Your task to perform on an android device: turn off location Image 0: 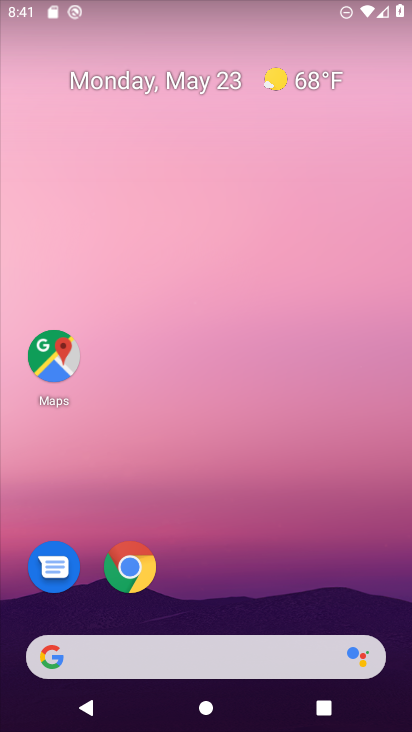
Step 0: drag from (265, 352) to (257, 51)
Your task to perform on an android device: turn off location Image 1: 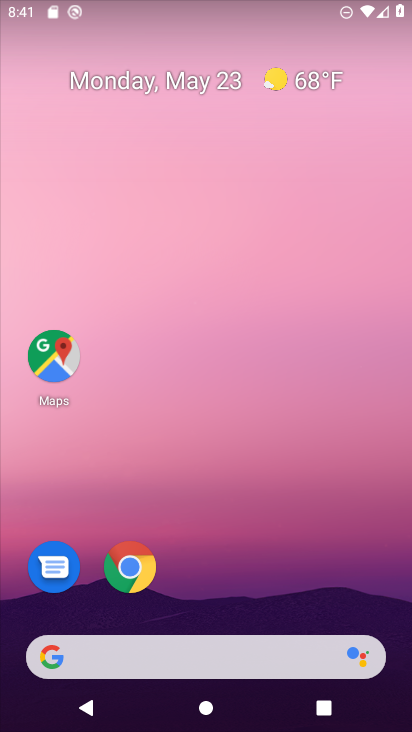
Step 1: drag from (203, 612) to (225, 57)
Your task to perform on an android device: turn off location Image 2: 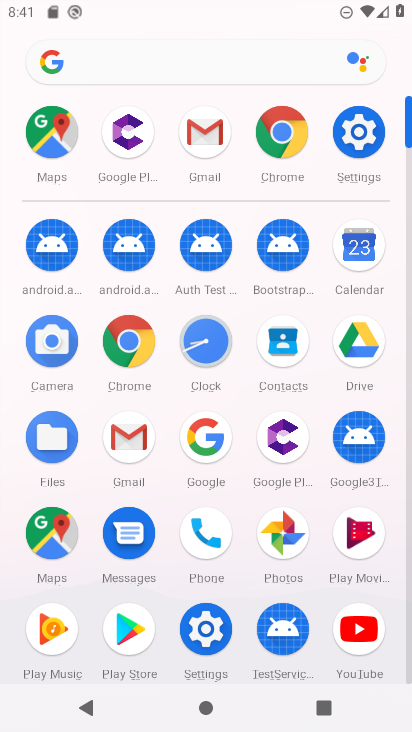
Step 2: click (361, 119)
Your task to perform on an android device: turn off location Image 3: 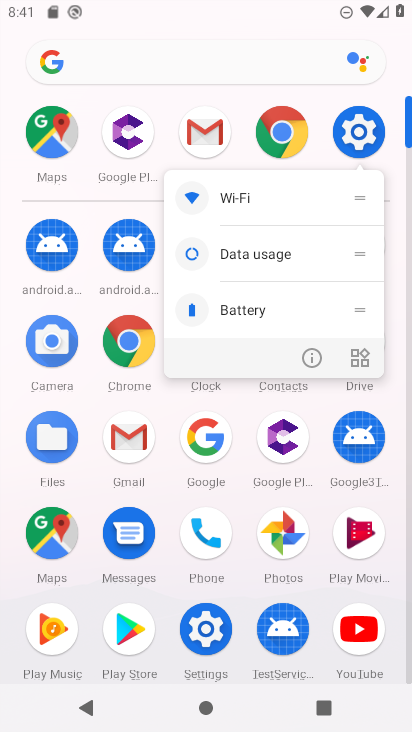
Step 3: click (310, 346)
Your task to perform on an android device: turn off location Image 4: 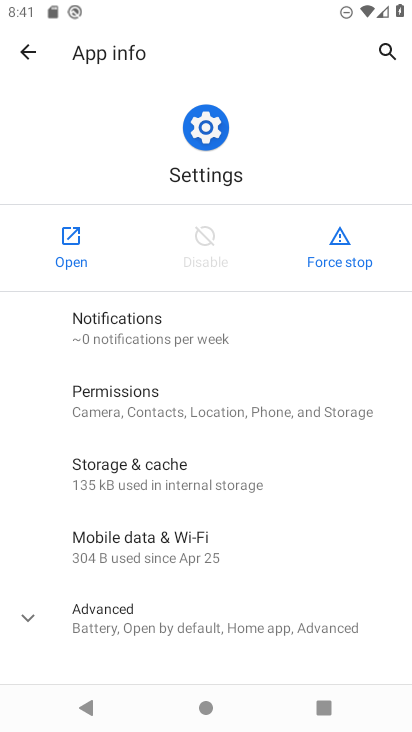
Step 4: click (61, 244)
Your task to perform on an android device: turn off location Image 5: 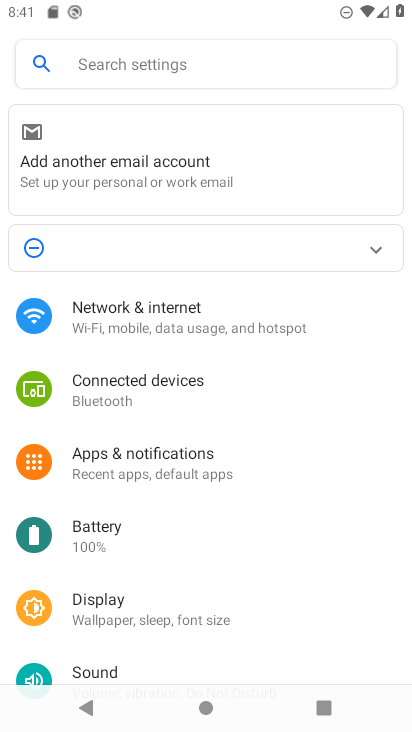
Step 5: drag from (226, 530) to (329, 111)
Your task to perform on an android device: turn off location Image 6: 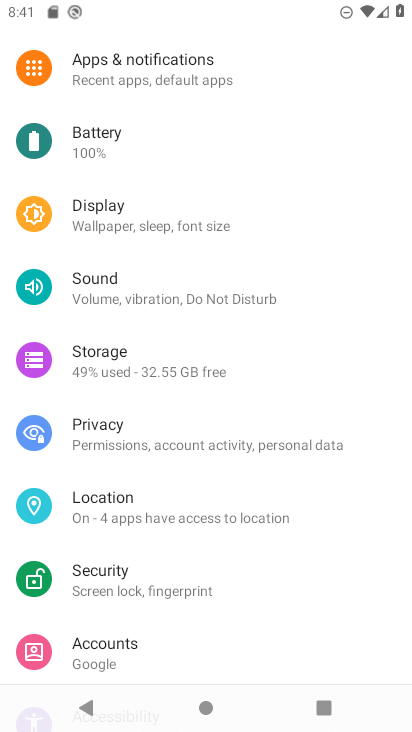
Step 6: click (178, 513)
Your task to perform on an android device: turn off location Image 7: 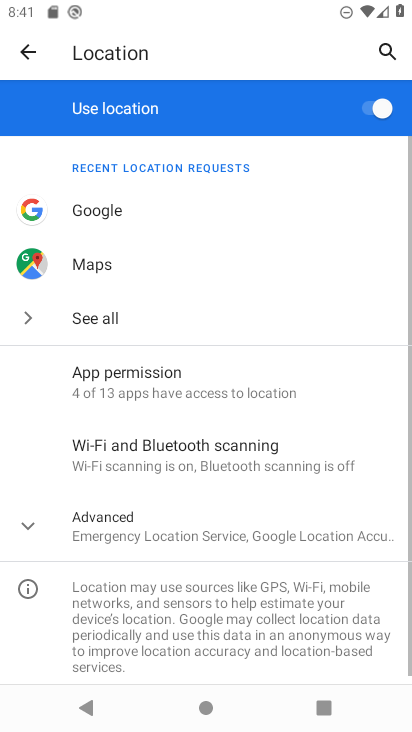
Step 7: click (386, 106)
Your task to perform on an android device: turn off location Image 8: 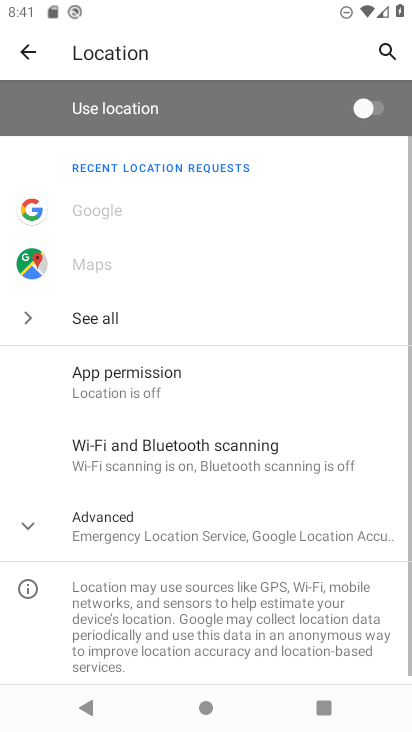
Step 8: task complete